Your task to perform on an android device: turn on notifications settings in the gmail app Image 0: 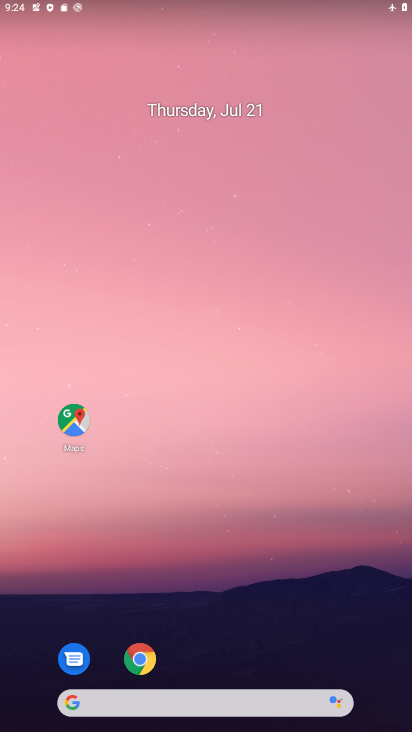
Step 0: drag from (228, 689) to (163, 95)
Your task to perform on an android device: turn on notifications settings in the gmail app Image 1: 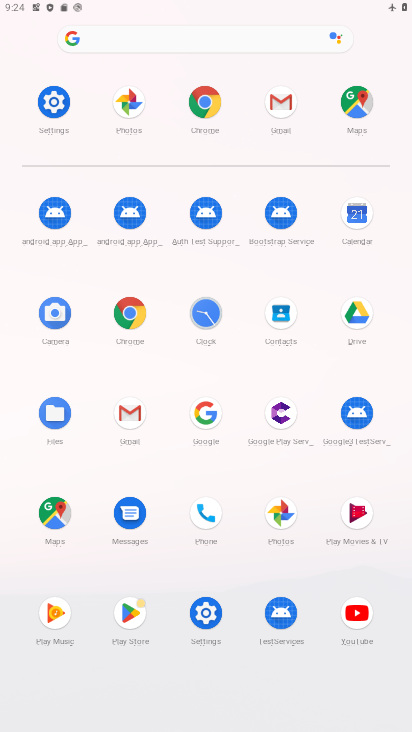
Step 1: click (279, 101)
Your task to perform on an android device: turn on notifications settings in the gmail app Image 2: 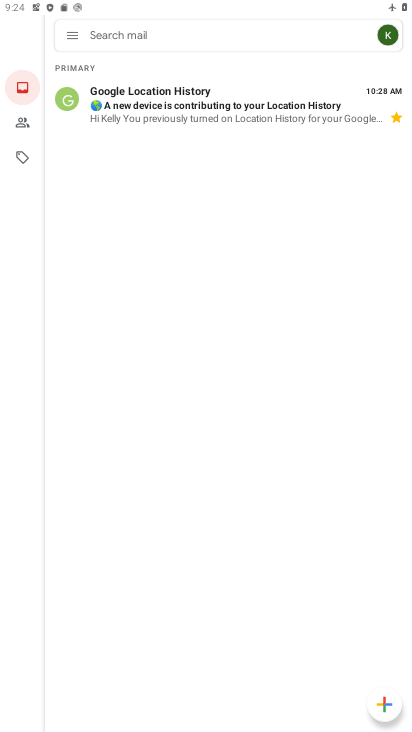
Step 2: click (69, 37)
Your task to perform on an android device: turn on notifications settings in the gmail app Image 3: 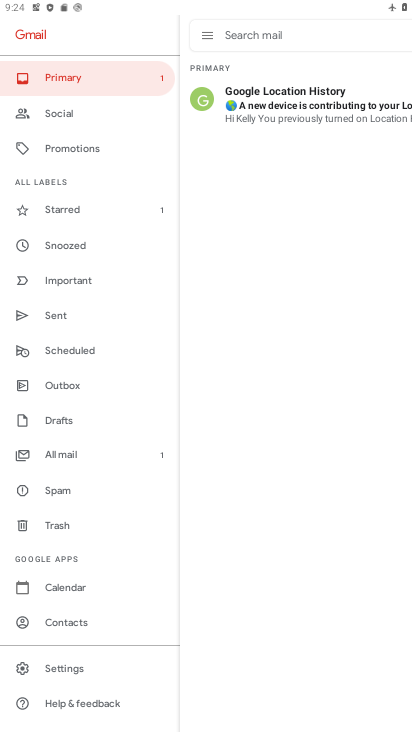
Step 3: click (38, 674)
Your task to perform on an android device: turn on notifications settings in the gmail app Image 4: 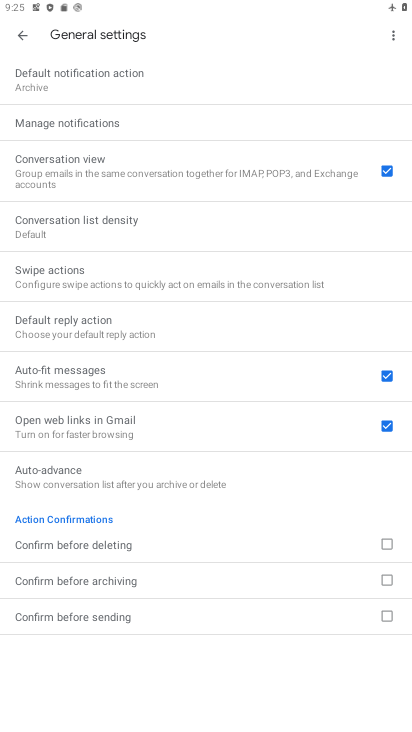
Step 4: click (141, 123)
Your task to perform on an android device: turn on notifications settings in the gmail app Image 5: 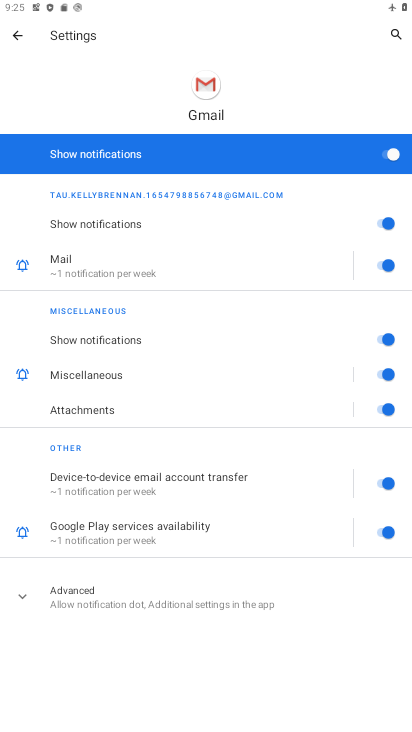
Step 5: task complete